Your task to perform on an android device: Open location settings Image 0: 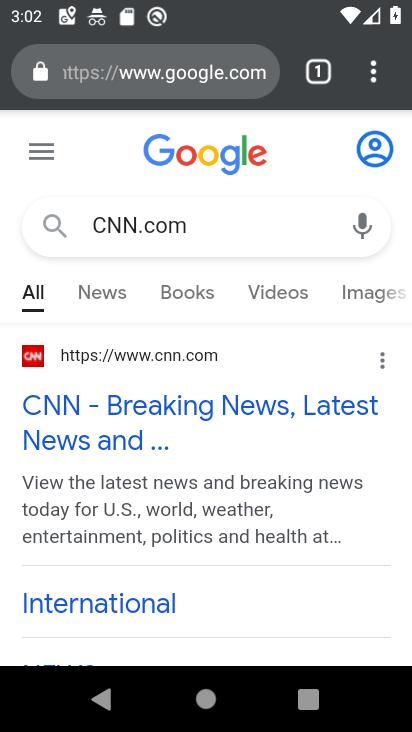
Step 0: press home button
Your task to perform on an android device: Open location settings Image 1: 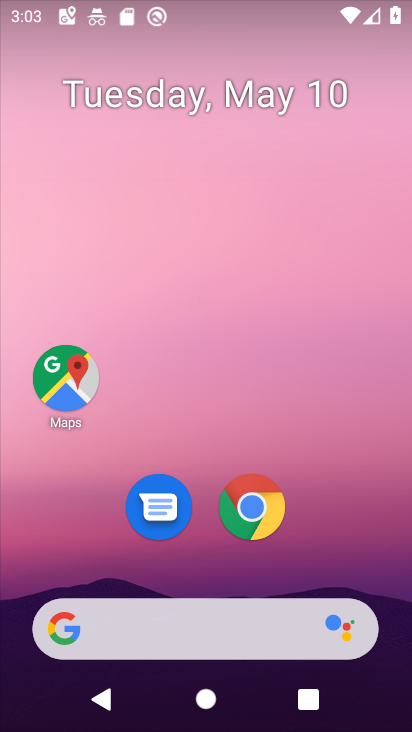
Step 1: drag from (129, 562) to (158, 175)
Your task to perform on an android device: Open location settings Image 2: 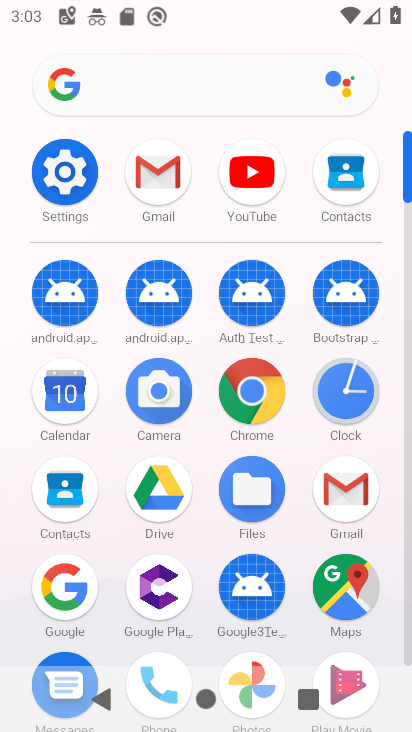
Step 2: click (67, 172)
Your task to perform on an android device: Open location settings Image 3: 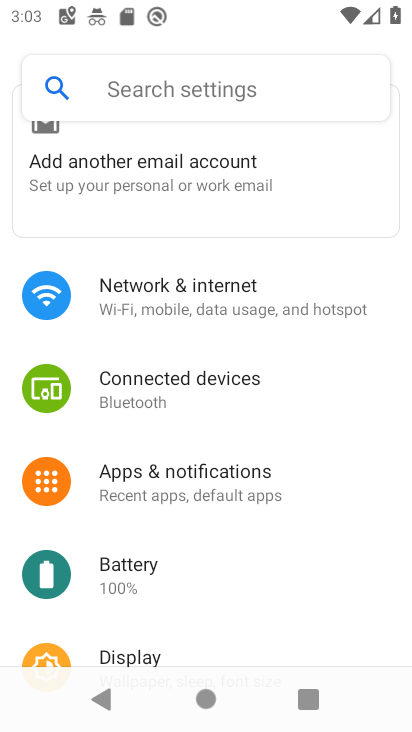
Step 3: drag from (199, 556) to (237, 258)
Your task to perform on an android device: Open location settings Image 4: 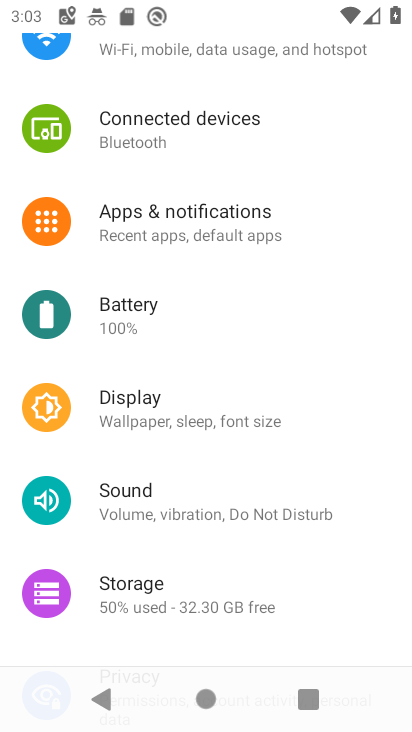
Step 4: drag from (242, 574) to (272, 214)
Your task to perform on an android device: Open location settings Image 5: 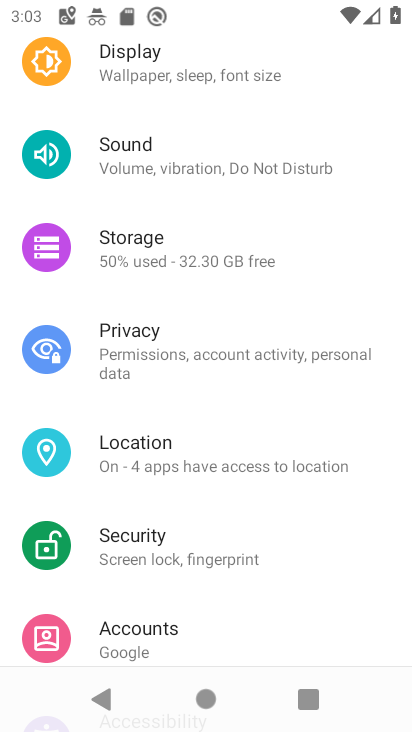
Step 5: click (203, 443)
Your task to perform on an android device: Open location settings Image 6: 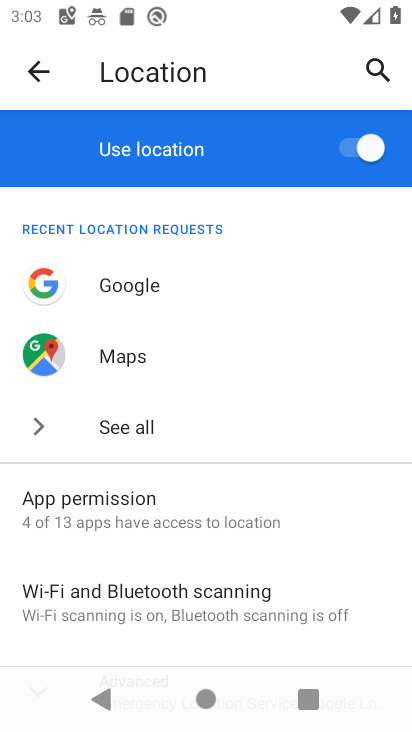
Step 6: task complete